Your task to perform on an android device: turn pop-ups off in chrome Image 0: 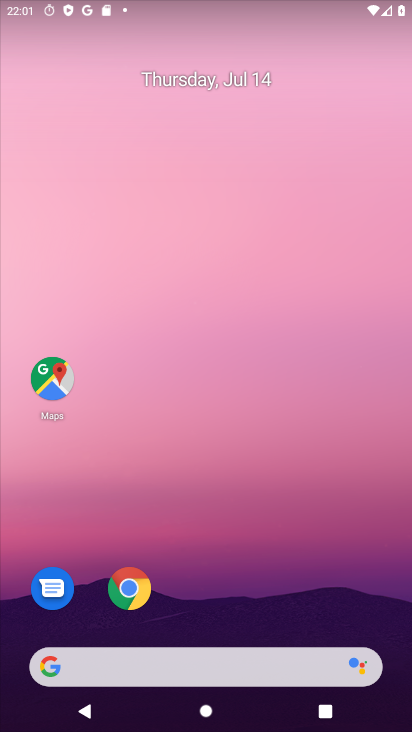
Step 0: click (126, 587)
Your task to perform on an android device: turn pop-ups off in chrome Image 1: 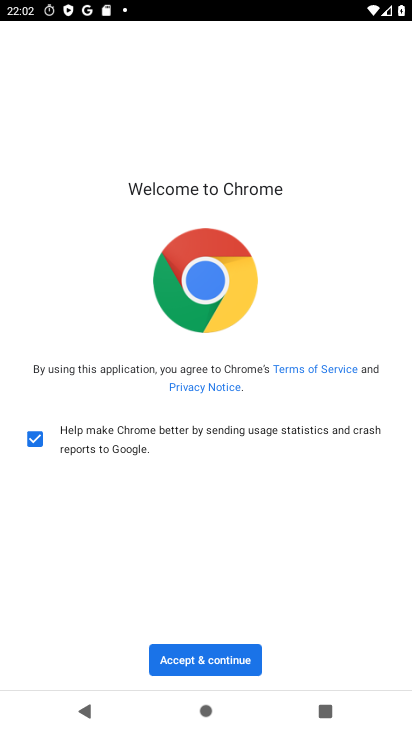
Step 1: click (205, 657)
Your task to perform on an android device: turn pop-ups off in chrome Image 2: 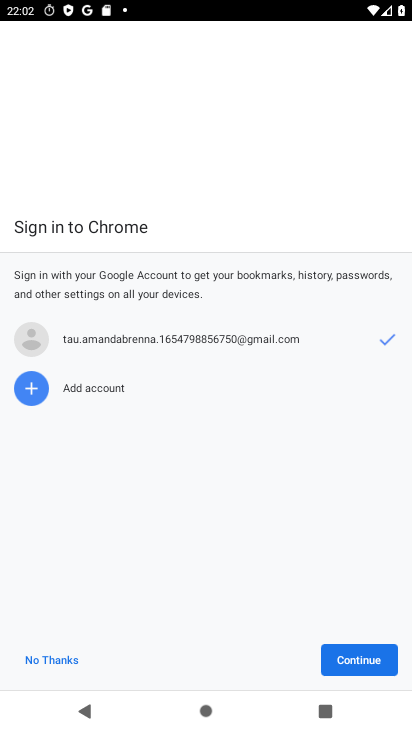
Step 2: click (361, 663)
Your task to perform on an android device: turn pop-ups off in chrome Image 3: 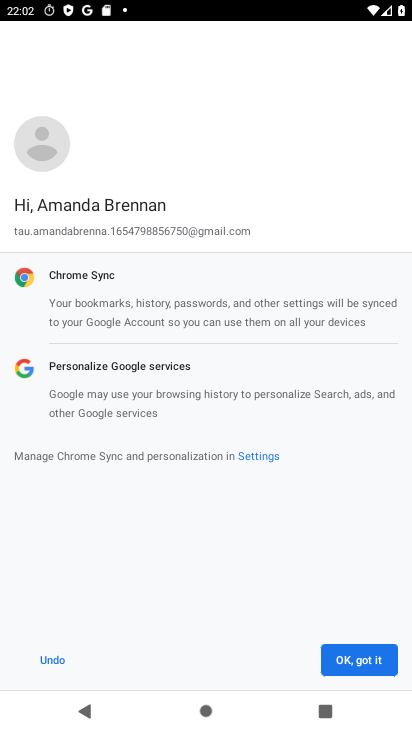
Step 3: click (372, 662)
Your task to perform on an android device: turn pop-ups off in chrome Image 4: 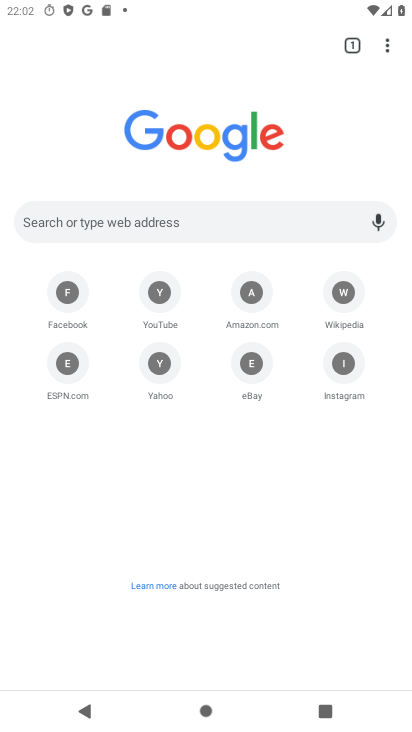
Step 4: click (384, 50)
Your task to perform on an android device: turn pop-ups off in chrome Image 5: 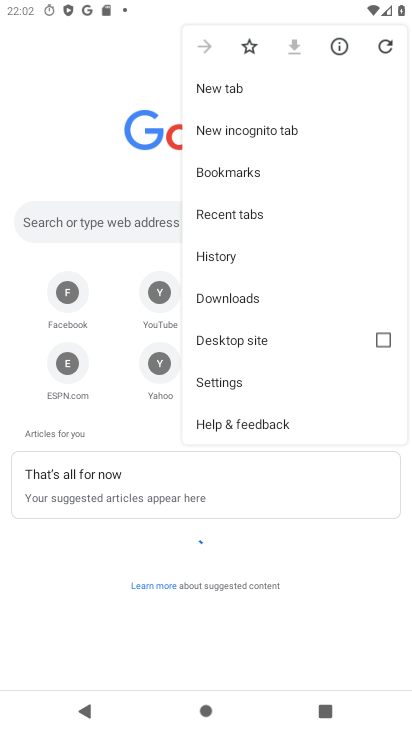
Step 5: click (241, 388)
Your task to perform on an android device: turn pop-ups off in chrome Image 6: 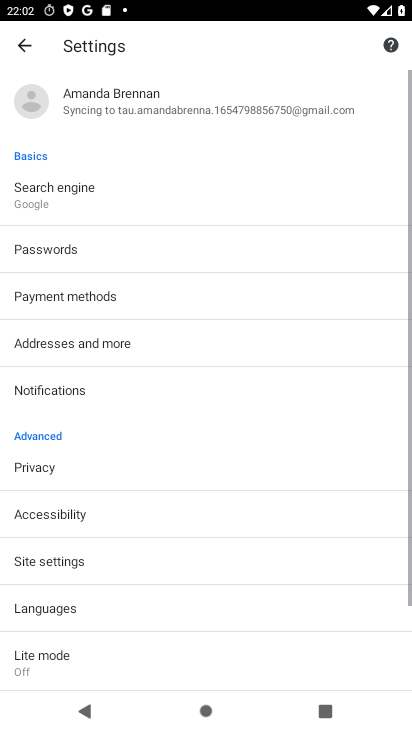
Step 6: click (48, 568)
Your task to perform on an android device: turn pop-ups off in chrome Image 7: 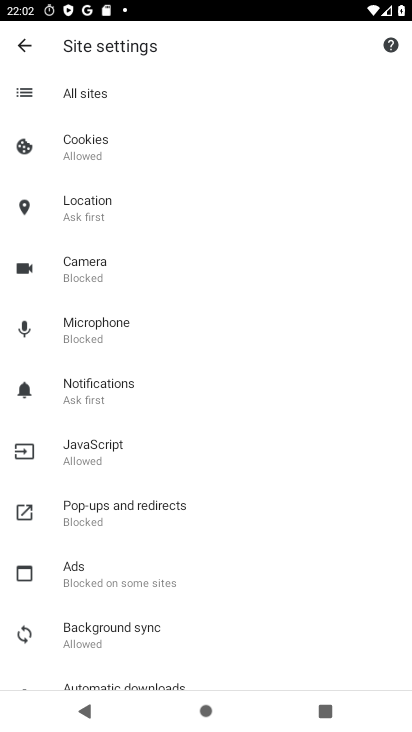
Step 7: click (114, 528)
Your task to perform on an android device: turn pop-ups off in chrome Image 8: 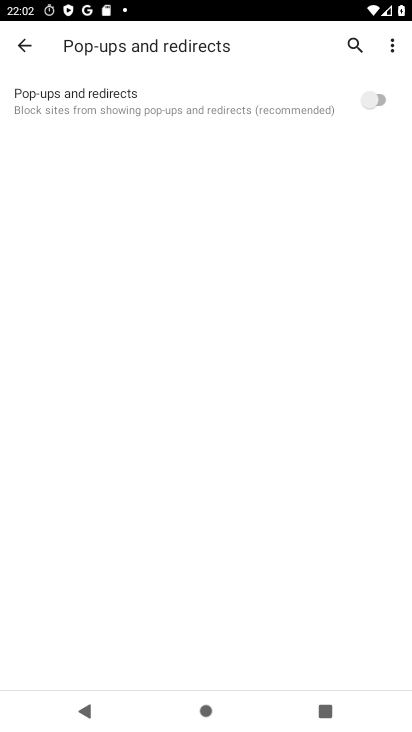
Step 8: task complete